Your task to perform on an android device: Open Yahoo.com Image 0: 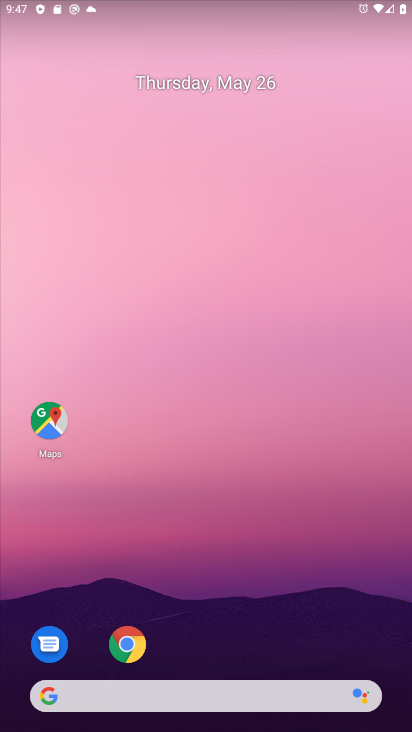
Step 0: click (110, 645)
Your task to perform on an android device: Open Yahoo.com Image 1: 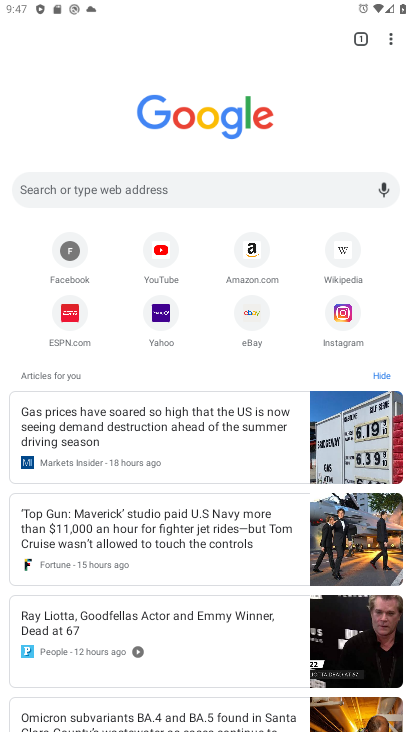
Step 1: click (167, 324)
Your task to perform on an android device: Open Yahoo.com Image 2: 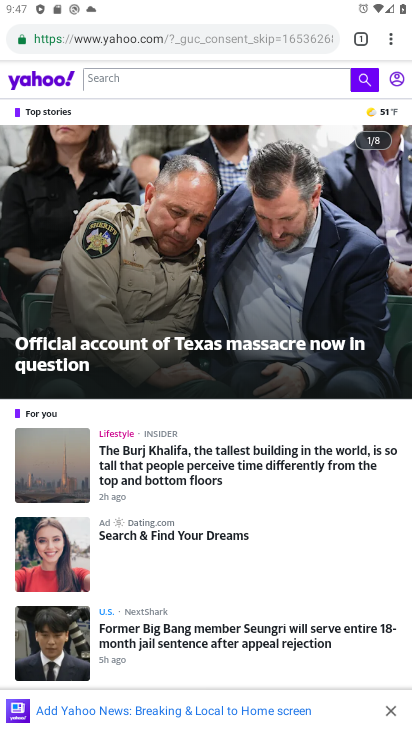
Step 2: task complete